Your task to perform on an android device: Open battery settings Image 0: 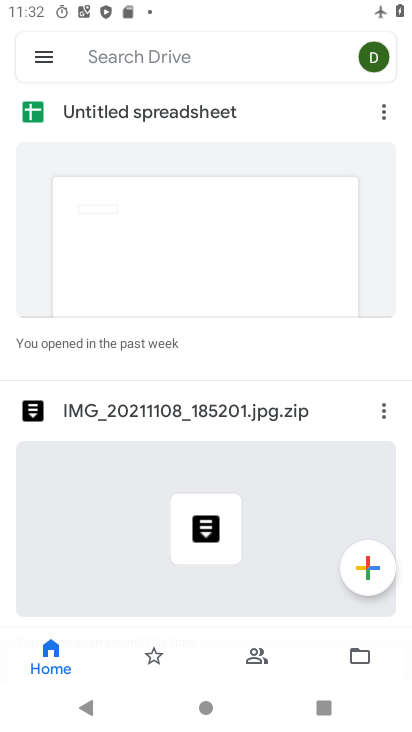
Step 0: press home button
Your task to perform on an android device: Open battery settings Image 1: 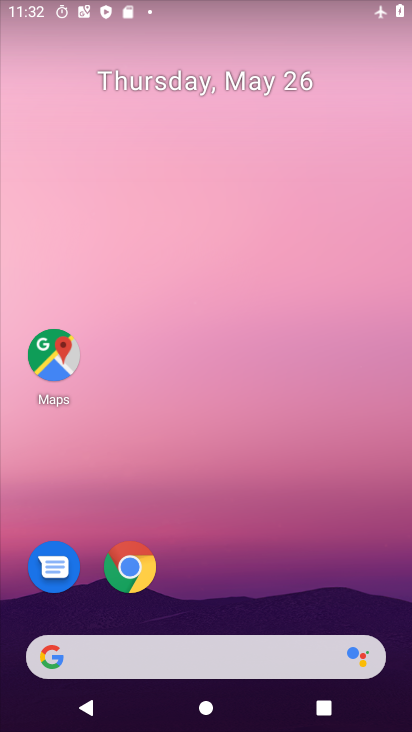
Step 1: drag from (250, 709) to (193, 173)
Your task to perform on an android device: Open battery settings Image 2: 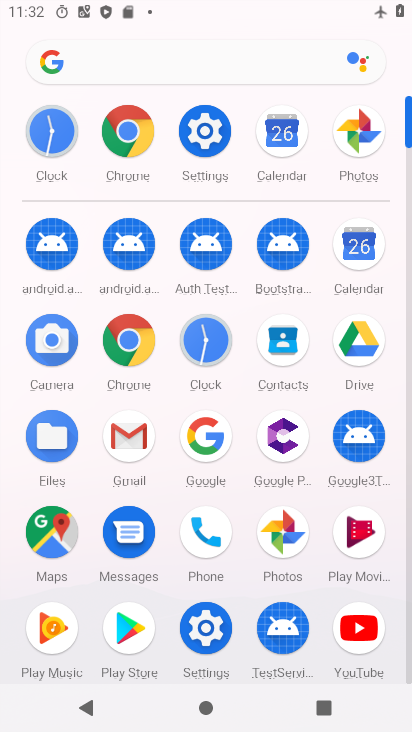
Step 2: click (200, 130)
Your task to perform on an android device: Open battery settings Image 3: 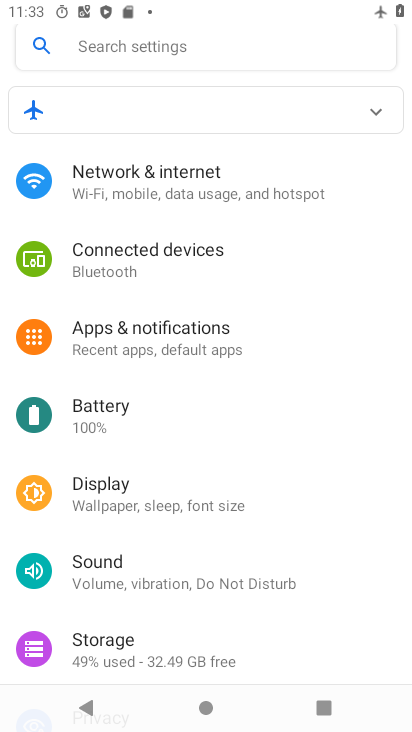
Step 3: click (129, 423)
Your task to perform on an android device: Open battery settings Image 4: 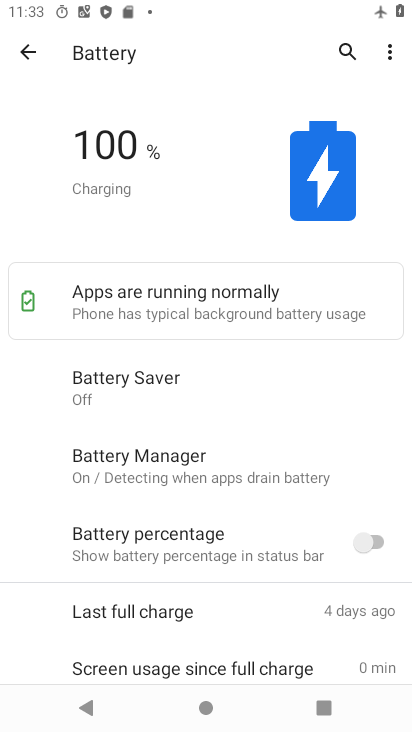
Step 4: task complete